Your task to perform on an android device: Open privacy settings Image 0: 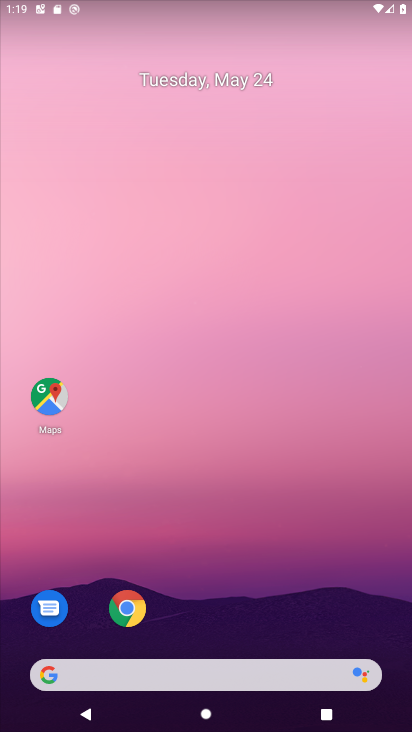
Step 0: click (137, 606)
Your task to perform on an android device: Open privacy settings Image 1: 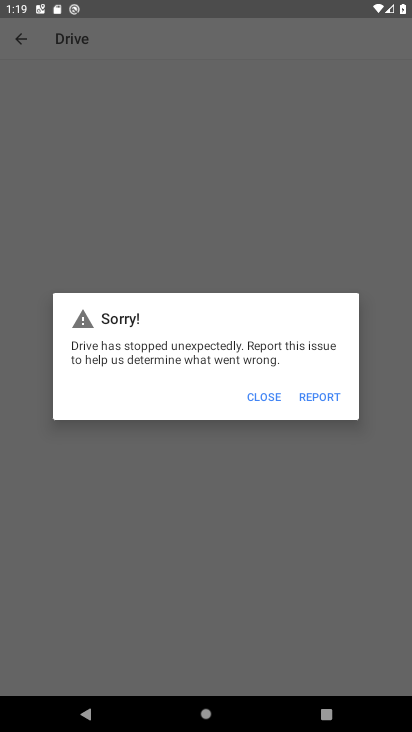
Step 1: press home button
Your task to perform on an android device: Open privacy settings Image 2: 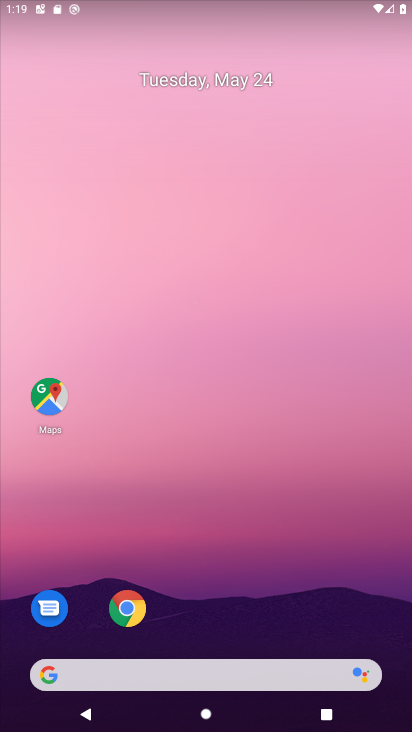
Step 2: drag from (348, 620) to (306, 110)
Your task to perform on an android device: Open privacy settings Image 3: 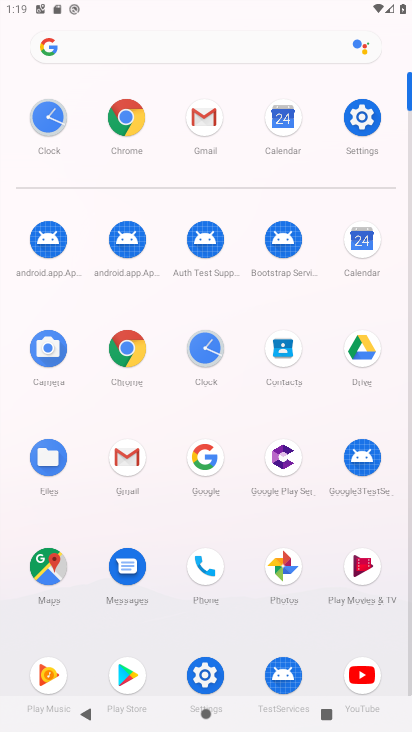
Step 3: click (361, 125)
Your task to perform on an android device: Open privacy settings Image 4: 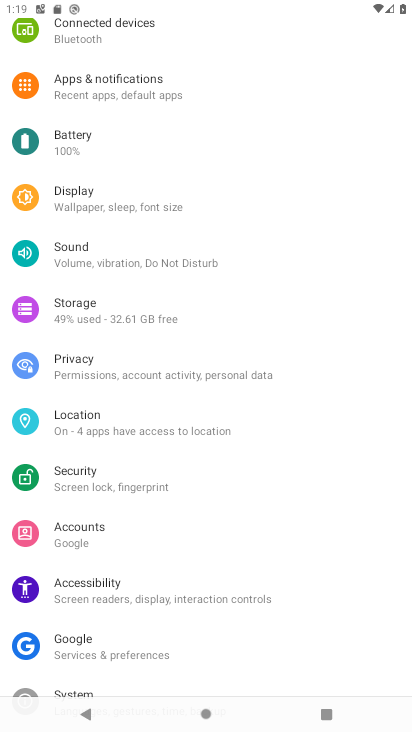
Step 4: click (197, 384)
Your task to perform on an android device: Open privacy settings Image 5: 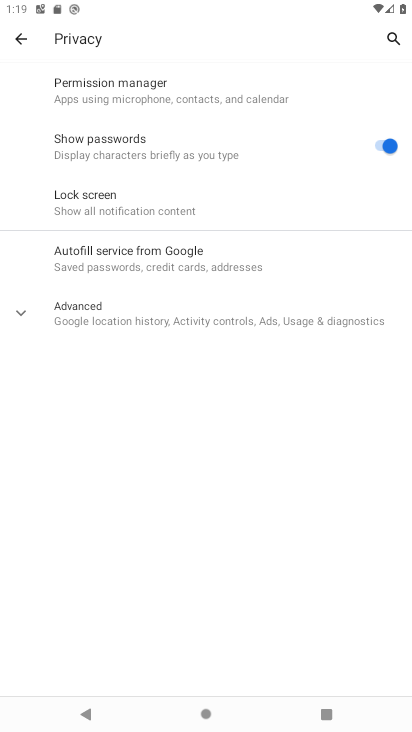
Step 5: task complete